Your task to perform on an android device: delete the emails in spam in the gmail app Image 0: 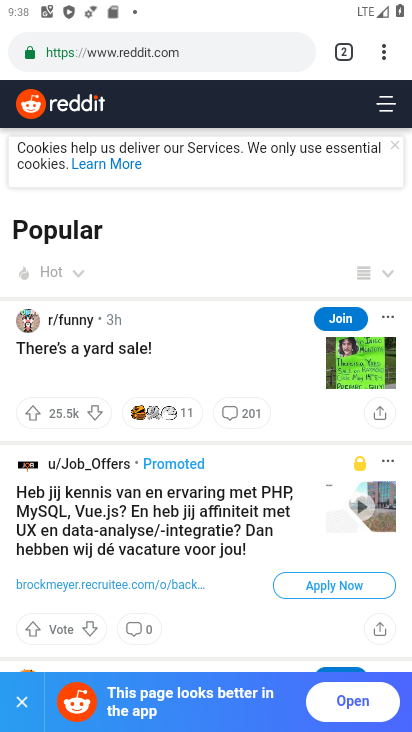
Step 0: press home button
Your task to perform on an android device: delete the emails in spam in the gmail app Image 1: 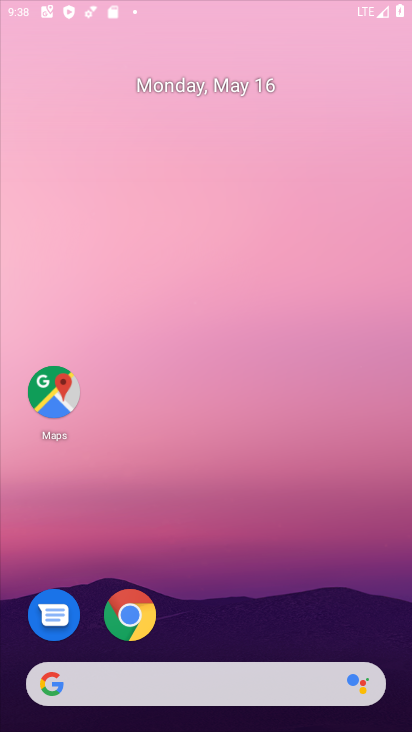
Step 1: drag from (207, 651) to (205, 136)
Your task to perform on an android device: delete the emails in spam in the gmail app Image 2: 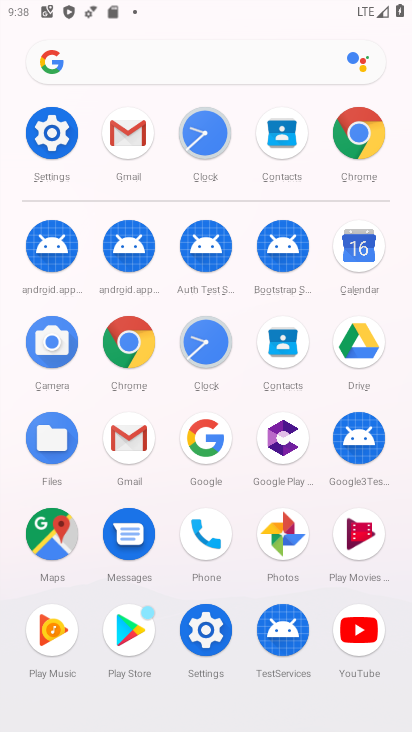
Step 2: click (139, 458)
Your task to perform on an android device: delete the emails in spam in the gmail app Image 3: 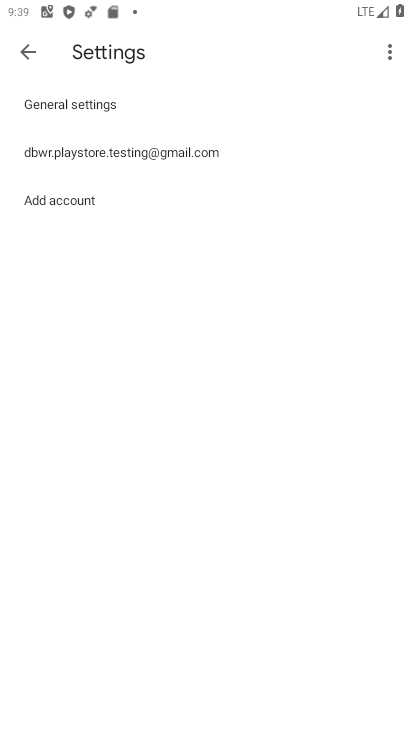
Step 3: click (25, 64)
Your task to perform on an android device: delete the emails in spam in the gmail app Image 4: 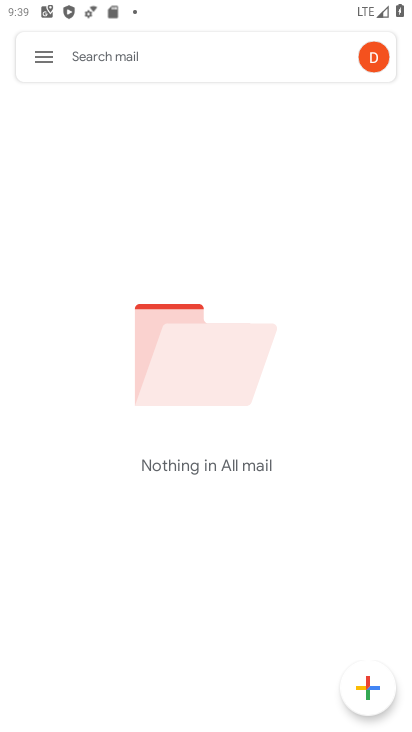
Step 4: click (44, 65)
Your task to perform on an android device: delete the emails in spam in the gmail app Image 5: 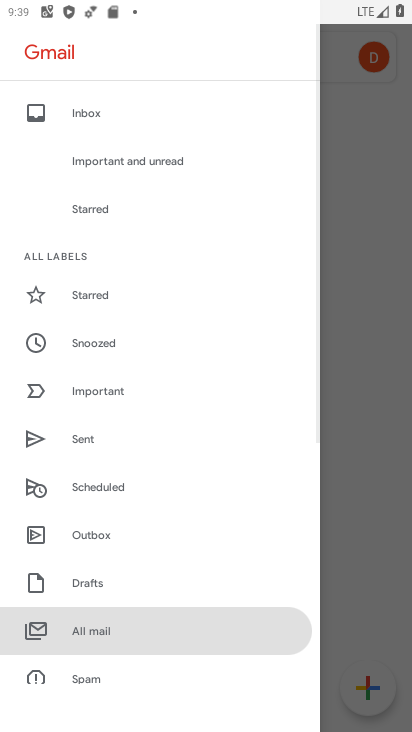
Step 5: drag from (138, 543) to (161, 296)
Your task to perform on an android device: delete the emails in spam in the gmail app Image 6: 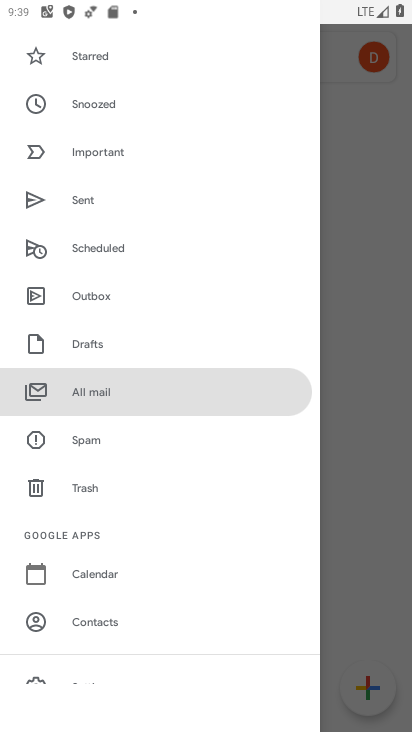
Step 6: click (89, 406)
Your task to perform on an android device: delete the emails in spam in the gmail app Image 7: 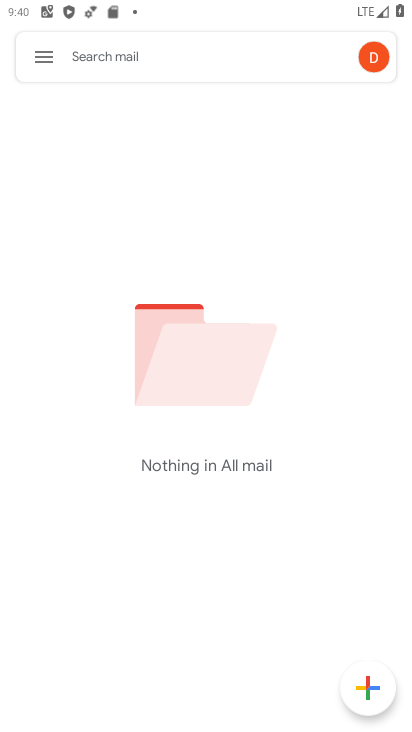
Step 7: task complete